Your task to perform on an android device: Search for vegetarian restaurants on Maps Image 0: 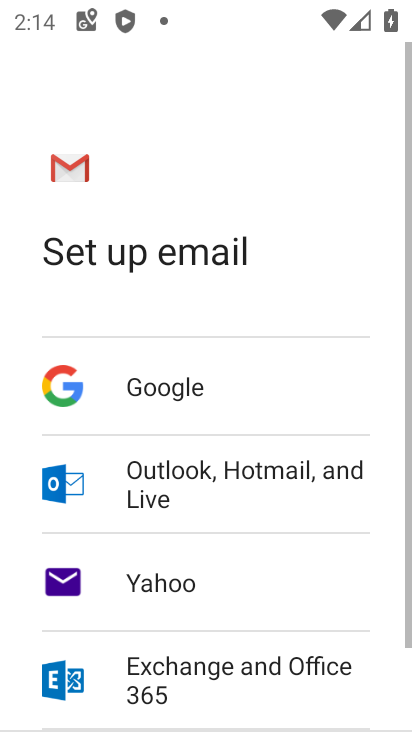
Step 0: press home button
Your task to perform on an android device: Search for vegetarian restaurants on Maps Image 1: 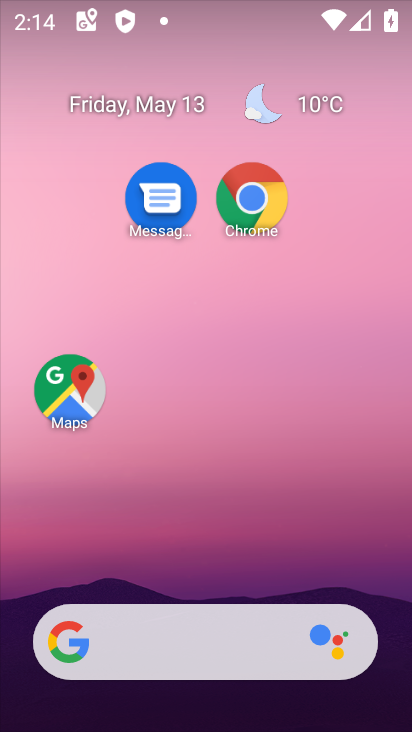
Step 1: drag from (181, 580) to (279, 6)
Your task to perform on an android device: Search for vegetarian restaurants on Maps Image 2: 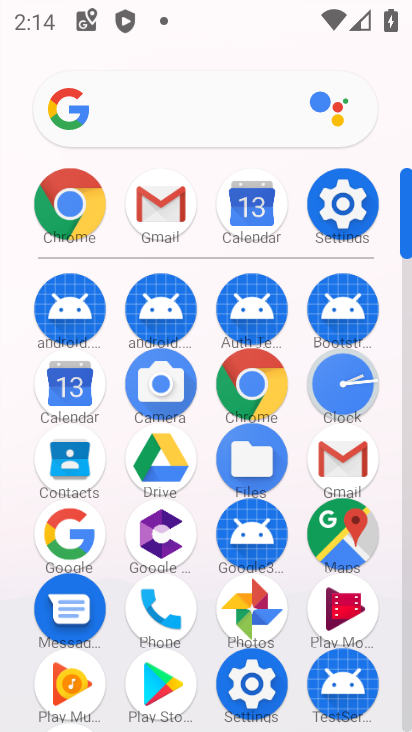
Step 2: click (326, 535)
Your task to perform on an android device: Search for vegetarian restaurants on Maps Image 3: 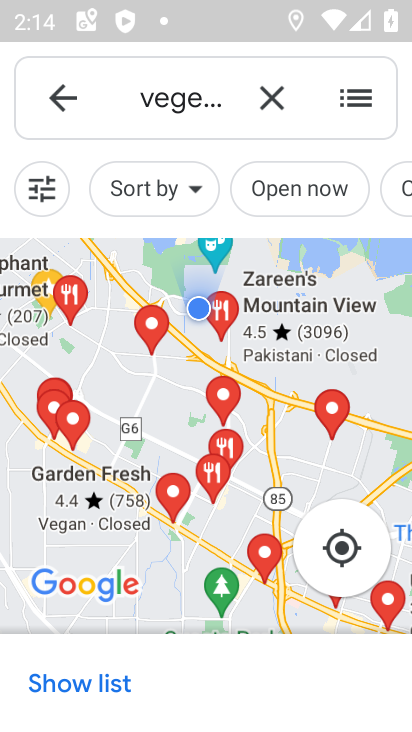
Step 3: task complete